Your task to perform on an android device: turn on the 24-hour format for clock Image 0: 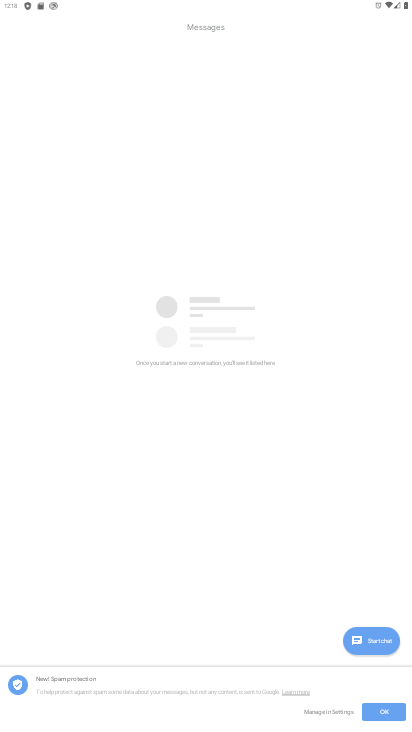
Step 0: drag from (278, 650) to (278, 524)
Your task to perform on an android device: turn on the 24-hour format for clock Image 1: 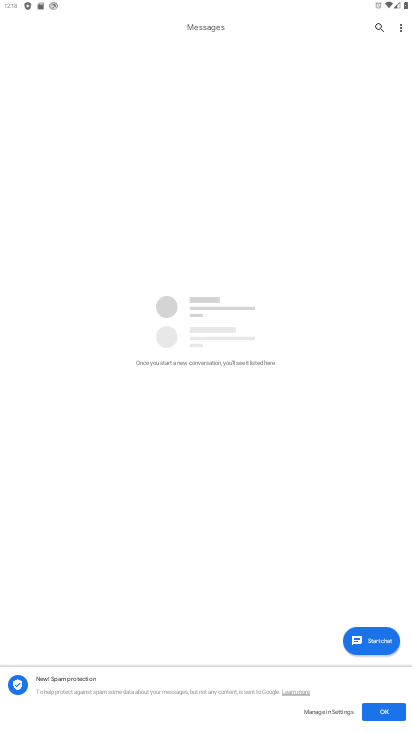
Step 1: press home button
Your task to perform on an android device: turn on the 24-hour format for clock Image 2: 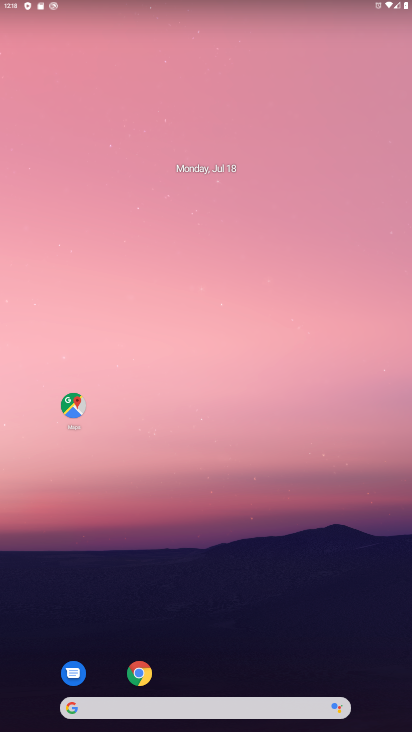
Step 2: drag from (250, 674) to (215, 101)
Your task to perform on an android device: turn on the 24-hour format for clock Image 3: 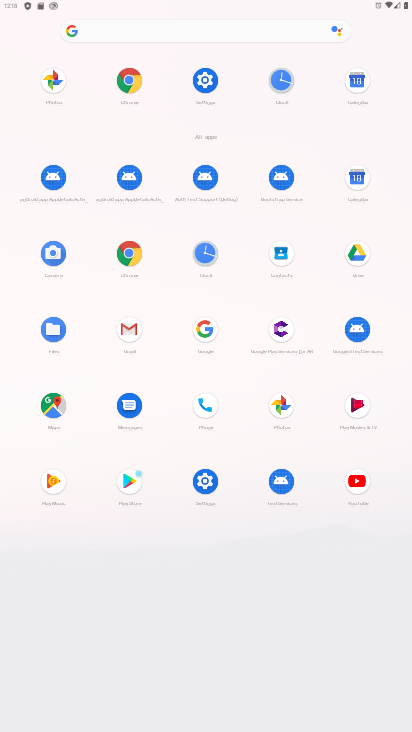
Step 3: click (292, 93)
Your task to perform on an android device: turn on the 24-hour format for clock Image 4: 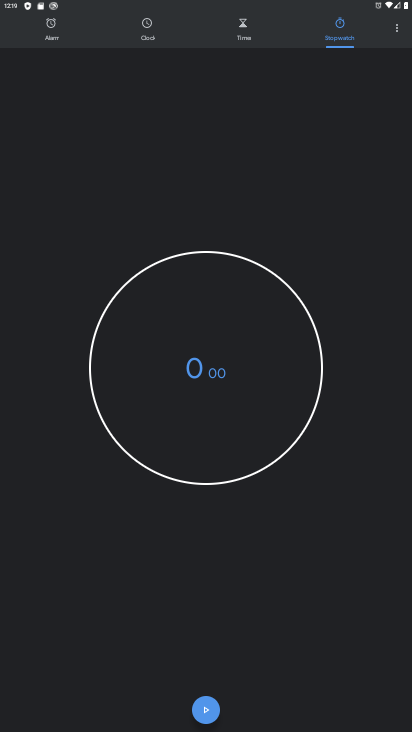
Step 4: click (394, 29)
Your task to perform on an android device: turn on the 24-hour format for clock Image 5: 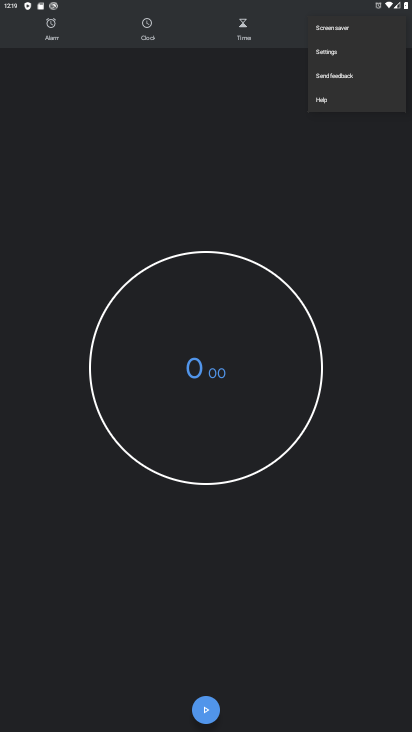
Step 5: click (368, 56)
Your task to perform on an android device: turn on the 24-hour format for clock Image 6: 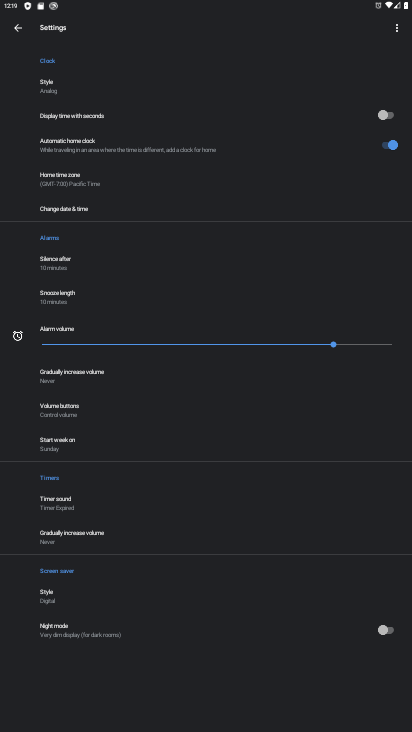
Step 6: click (126, 218)
Your task to perform on an android device: turn on the 24-hour format for clock Image 7: 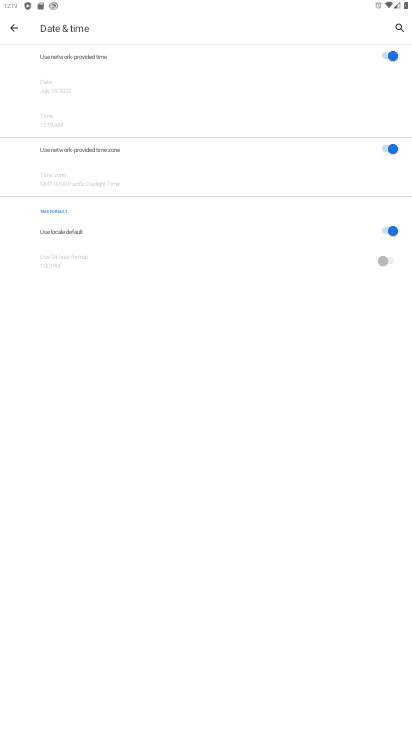
Step 7: click (385, 241)
Your task to perform on an android device: turn on the 24-hour format for clock Image 8: 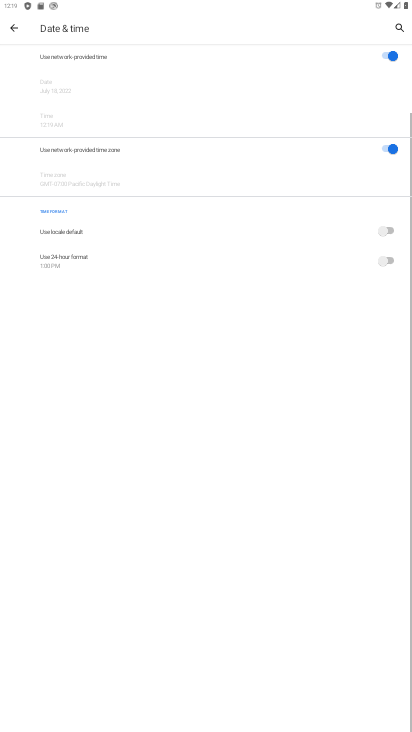
Step 8: click (381, 264)
Your task to perform on an android device: turn on the 24-hour format for clock Image 9: 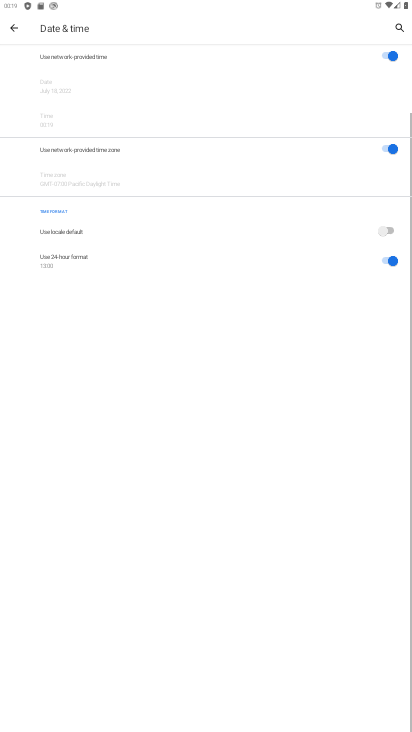
Step 9: task complete